Your task to perform on an android device: Go to calendar. Show me events next week Image 0: 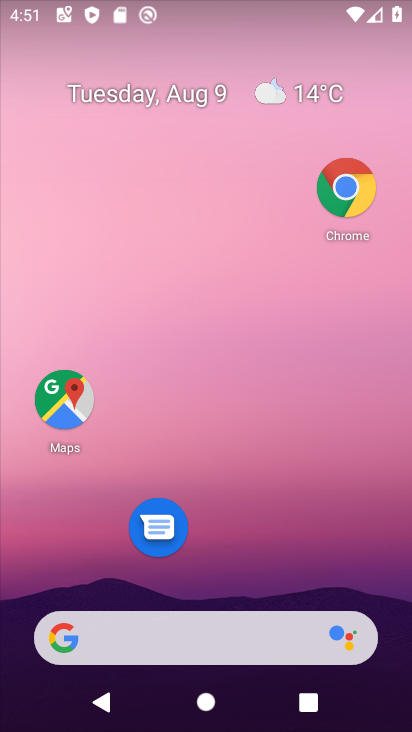
Step 0: click (147, 83)
Your task to perform on an android device: Go to calendar. Show me events next week Image 1: 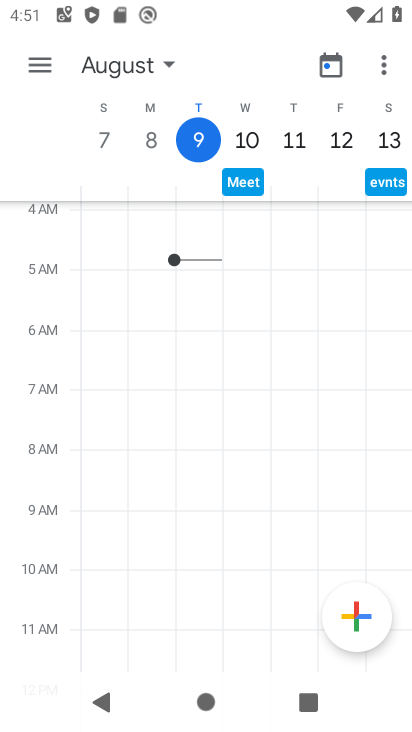
Step 1: click (172, 62)
Your task to perform on an android device: Go to calendar. Show me events next week Image 2: 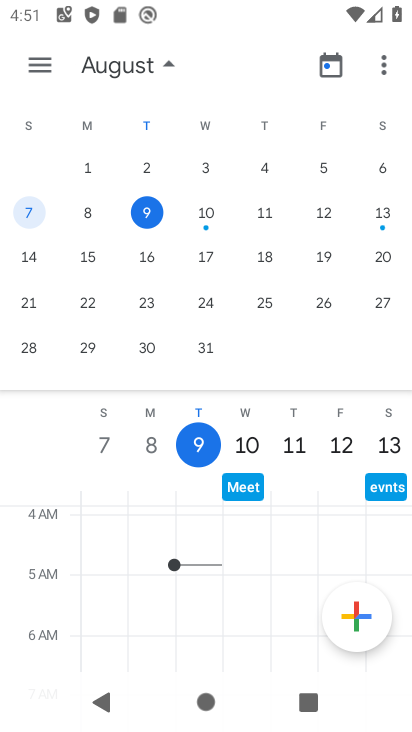
Step 2: click (211, 263)
Your task to perform on an android device: Go to calendar. Show me events next week Image 3: 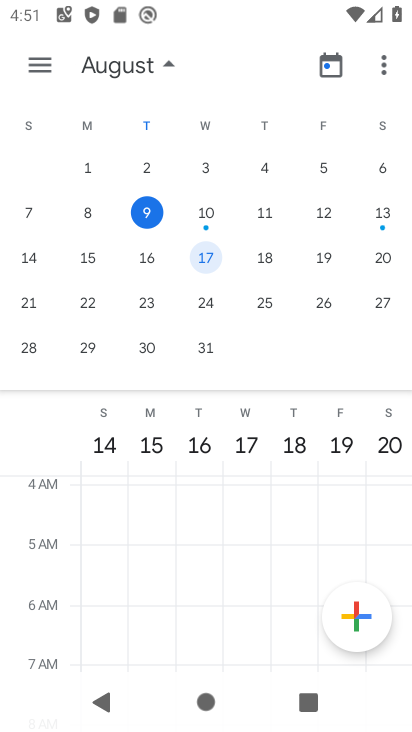
Step 3: task complete